Your task to perform on an android device: Open Google Maps and go to "Timeline" Image 0: 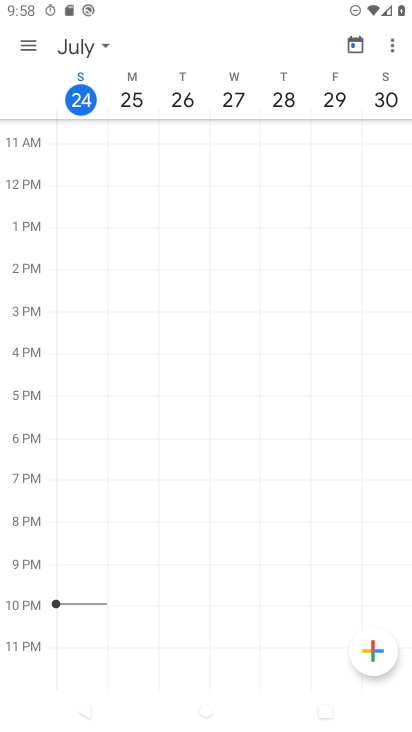
Step 0: press home button
Your task to perform on an android device: Open Google Maps and go to "Timeline" Image 1: 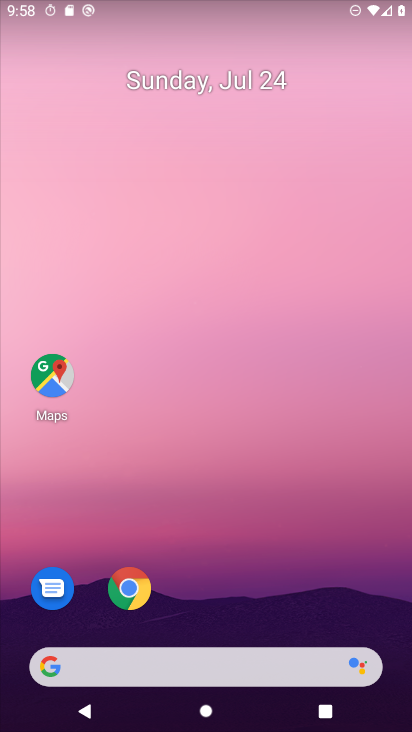
Step 1: click (55, 379)
Your task to perform on an android device: Open Google Maps and go to "Timeline" Image 2: 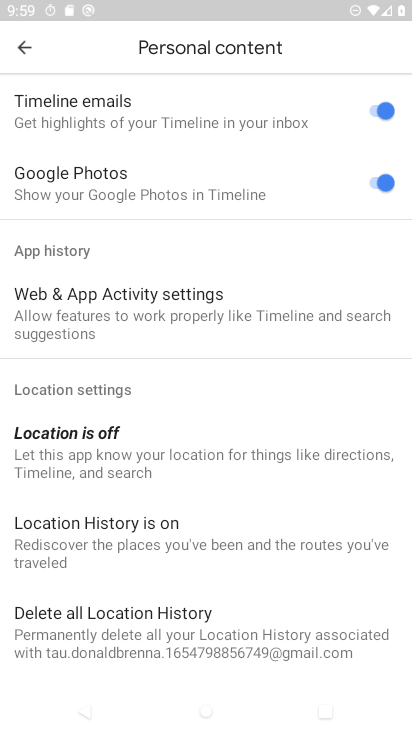
Step 2: click (22, 49)
Your task to perform on an android device: Open Google Maps and go to "Timeline" Image 3: 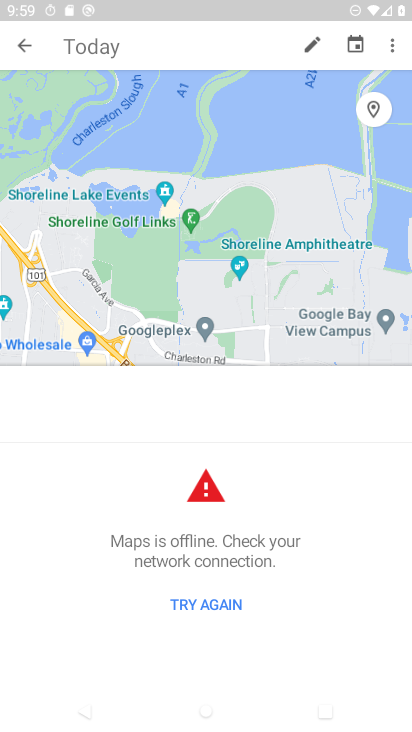
Step 3: click (396, 51)
Your task to perform on an android device: Open Google Maps and go to "Timeline" Image 4: 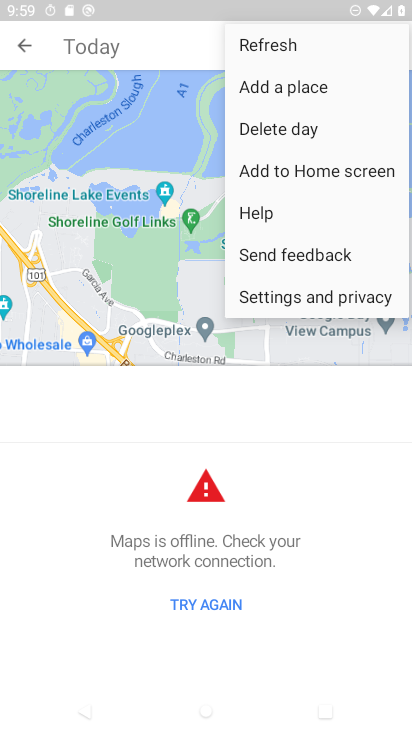
Step 4: click (184, 66)
Your task to perform on an android device: Open Google Maps and go to "Timeline" Image 5: 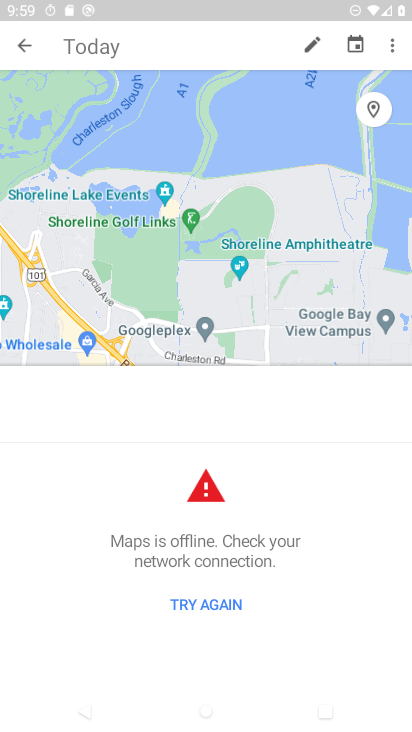
Step 5: click (179, 609)
Your task to perform on an android device: Open Google Maps and go to "Timeline" Image 6: 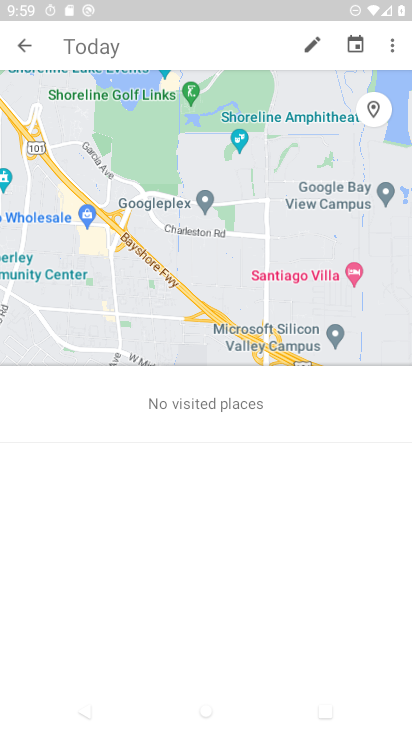
Step 6: click (14, 45)
Your task to perform on an android device: Open Google Maps and go to "Timeline" Image 7: 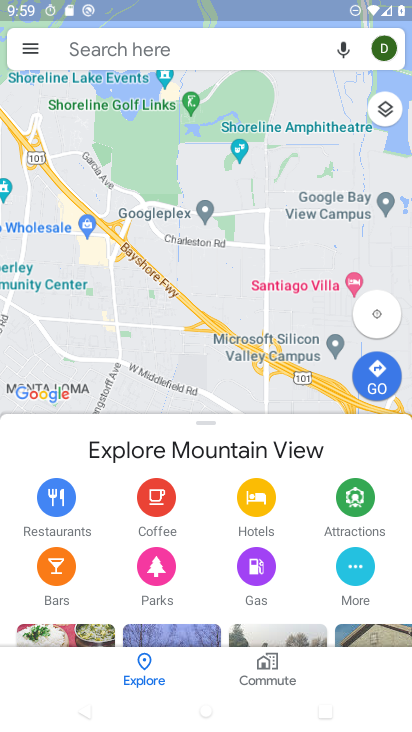
Step 7: click (32, 42)
Your task to perform on an android device: Open Google Maps and go to "Timeline" Image 8: 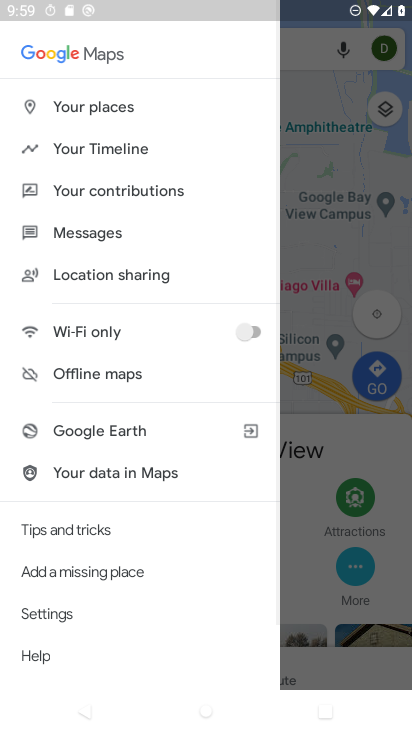
Step 8: click (60, 161)
Your task to perform on an android device: Open Google Maps and go to "Timeline" Image 9: 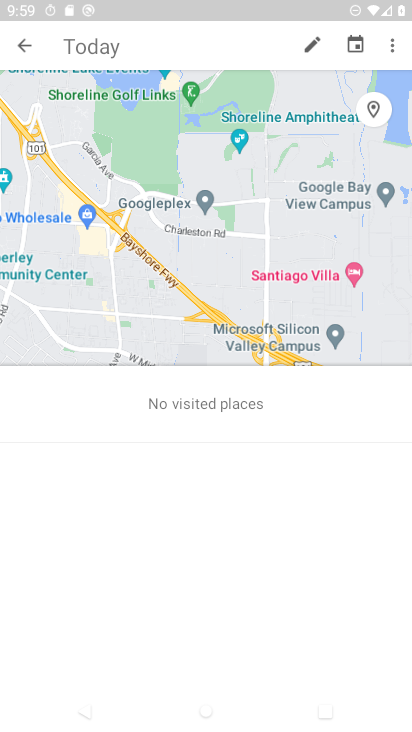
Step 9: task complete